Your task to perform on an android device: turn on wifi Image 0: 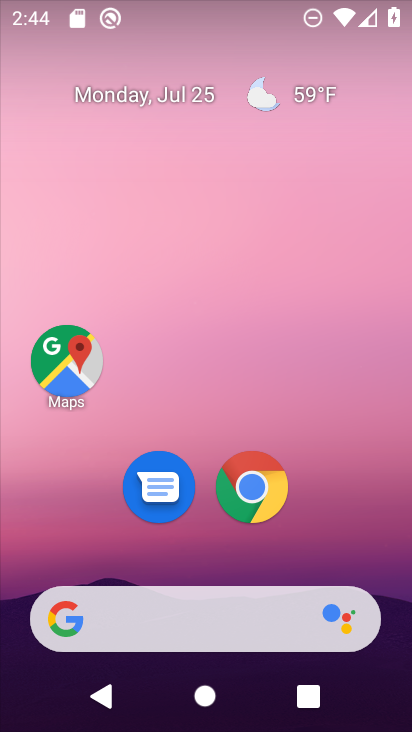
Step 0: drag from (155, 4) to (221, 606)
Your task to perform on an android device: turn on wifi Image 1: 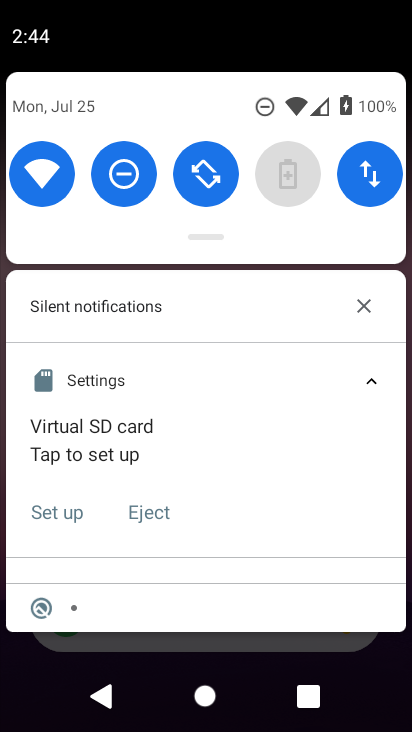
Step 1: task complete